Your task to perform on an android device: Is it going to rain today? Image 0: 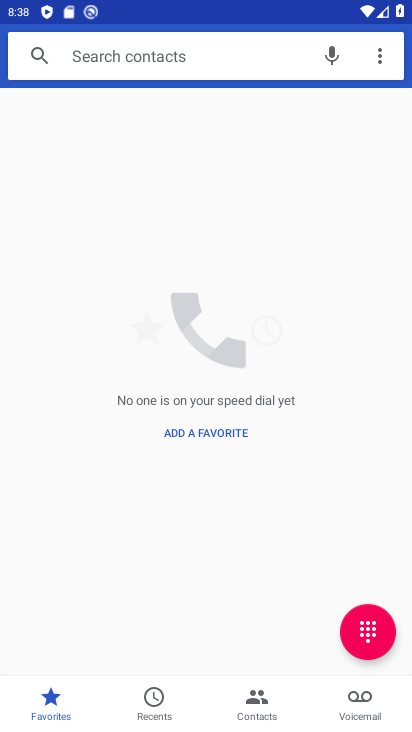
Step 0: press home button
Your task to perform on an android device: Is it going to rain today? Image 1: 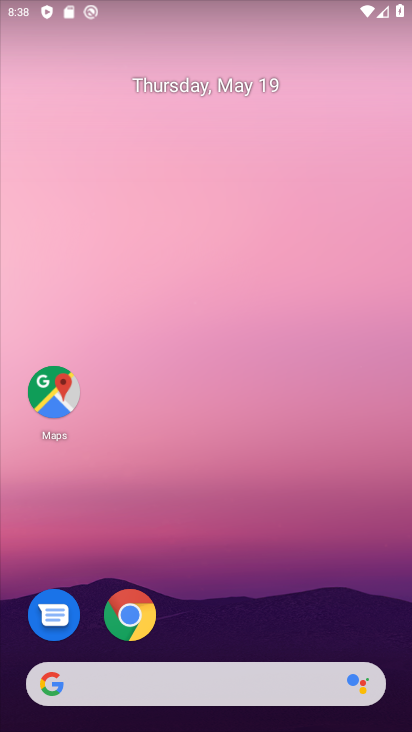
Step 1: drag from (251, 620) to (264, 64)
Your task to perform on an android device: Is it going to rain today? Image 2: 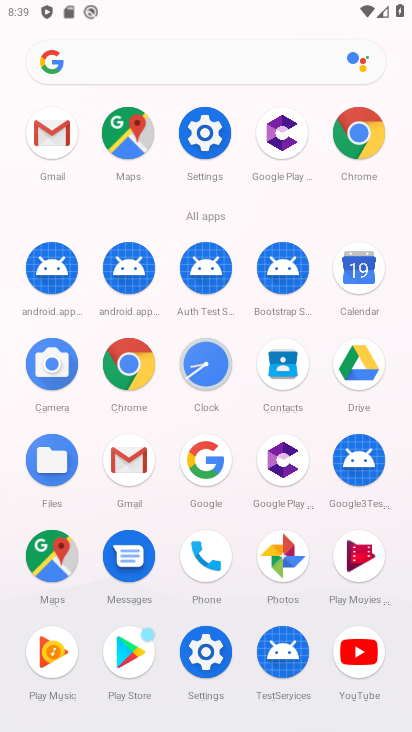
Step 2: click (353, 155)
Your task to perform on an android device: Is it going to rain today? Image 3: 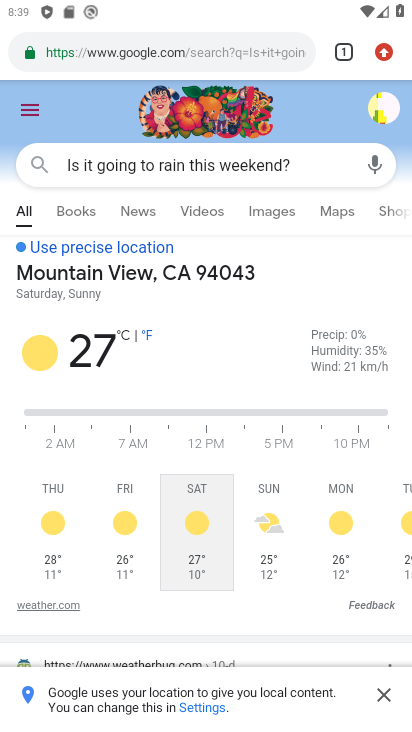
Step 3: click (211, 48)
Your task to perform on an android device: Is it going to rain today? Image 4: 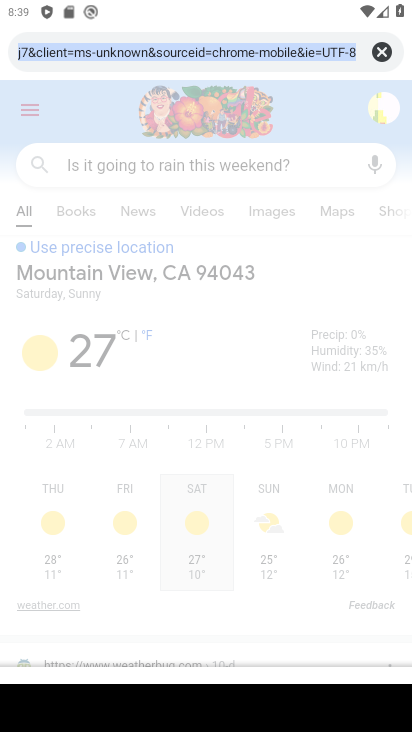
Step 4: click (378, 43)
Your task to perform on an android device: Is it going to rain today? Image 5: 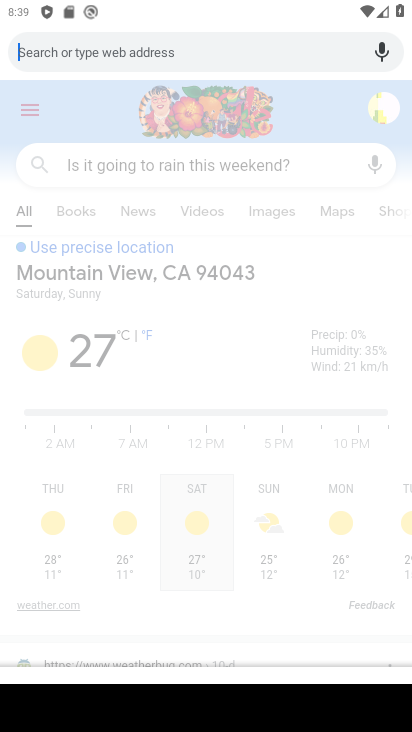
Step 5: type "Is it going to rain today?"
Your task to perform on an android device: Is it going to rain today? Image 6: 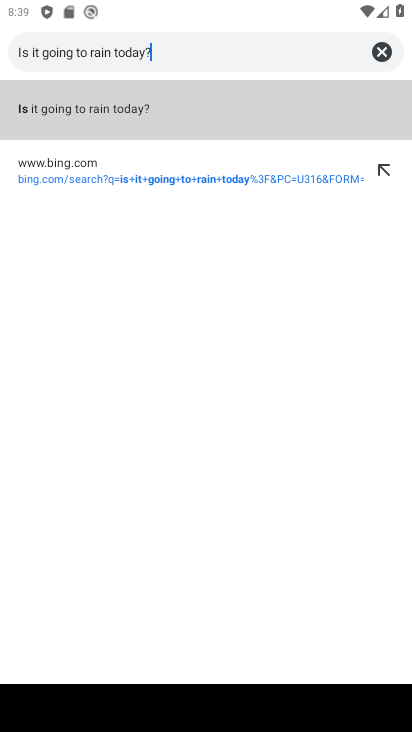
Step 6: type ""
Your task to perform on an android device: Is it going to rain today? Image 7: 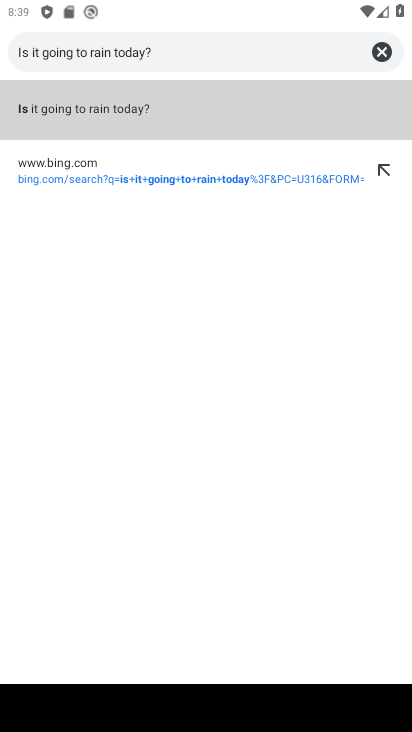
Step 7: click (243, 129)
Your task to perform on an android device: Is it going to rain today? Image 8: 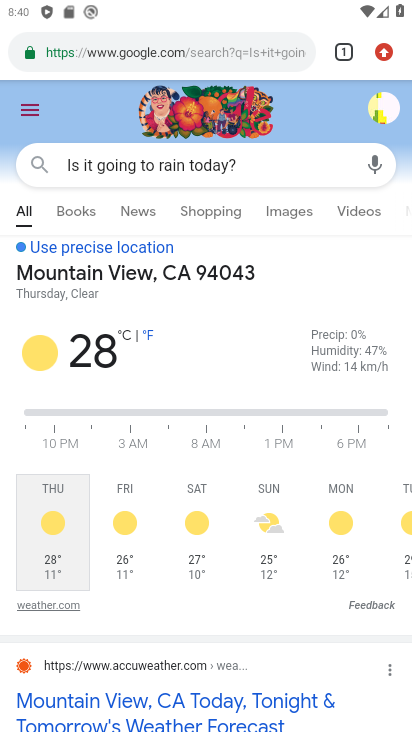
Step 8: task complete